Your task to perform on an android device: move a message to another label in the gmail app Image 0: 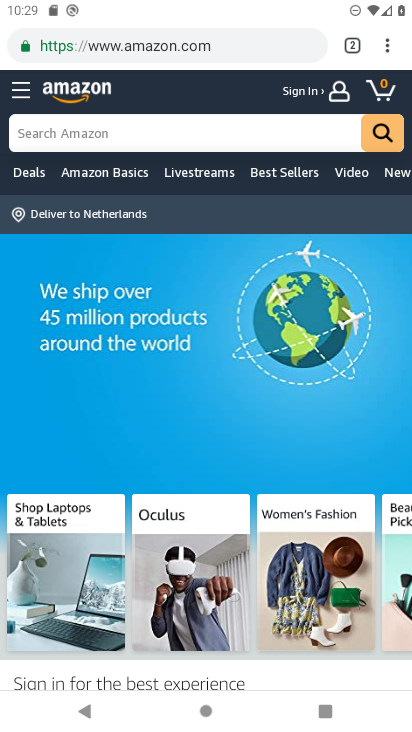
Step 0: press home button
Your task to perform on an android device: move a message to another label in the gmail app Image 1: 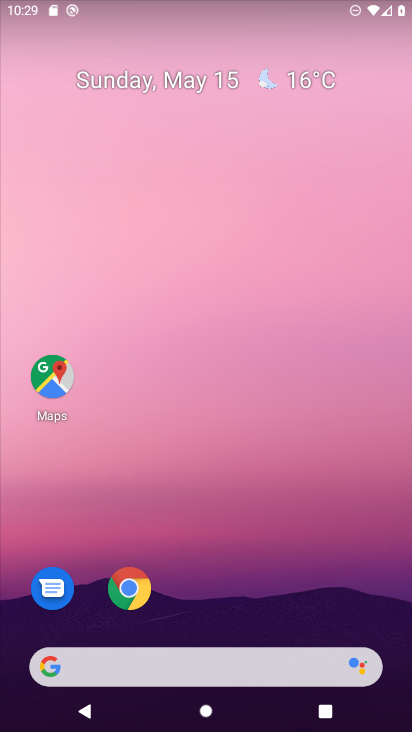
Step 1: drag from (182, 505) to (223, 27)
Your task to perform on an android device: move a message to another label in the gmail app Image 2: 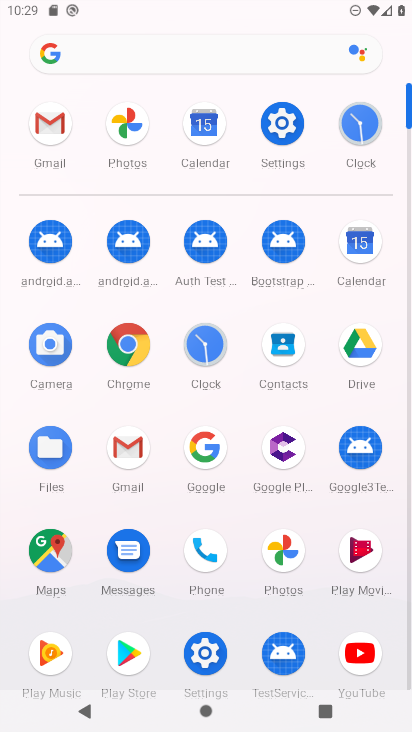
Step 2: click (60, 119)
Your task to perform on an android device: move a message to another label in the gmail app Image 3: 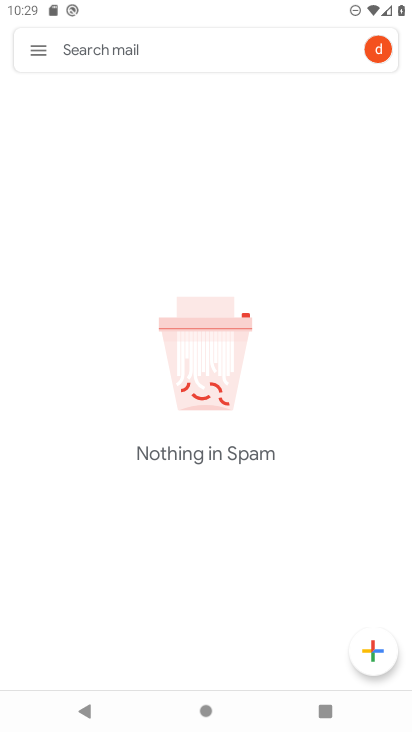
Step 3: task complete